Your task to perform on an android device: Open Google Chrome Image 0: 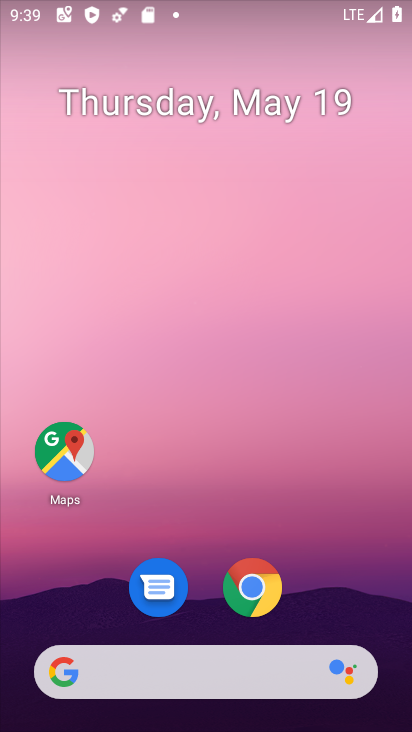
Step 0: click (246, 577)
Your task to perform on an android device: Open Google Chrome Image 1: 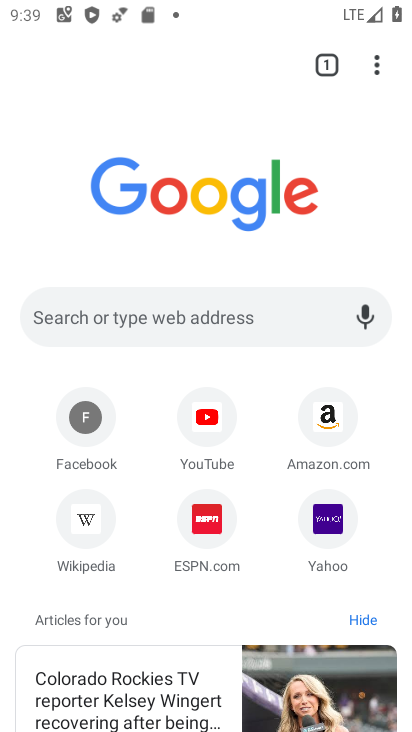
Step 1: task complete